Your task to perform on an android device: change the clock style Image 0: 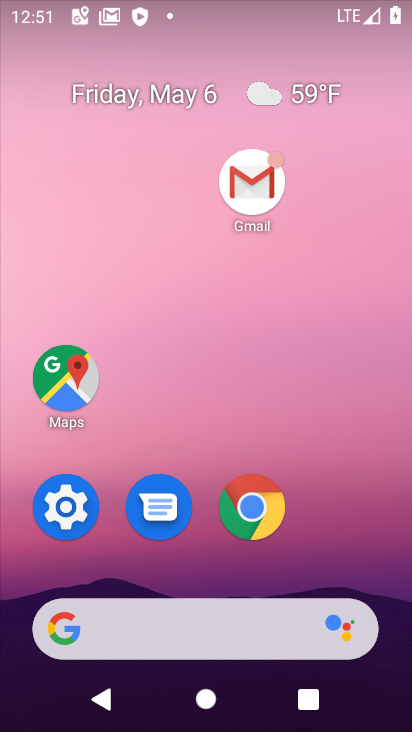
Step 0: drag from (343, 539) to (276, 4)
Your task to perform on an android device: change the clock style Image 1: 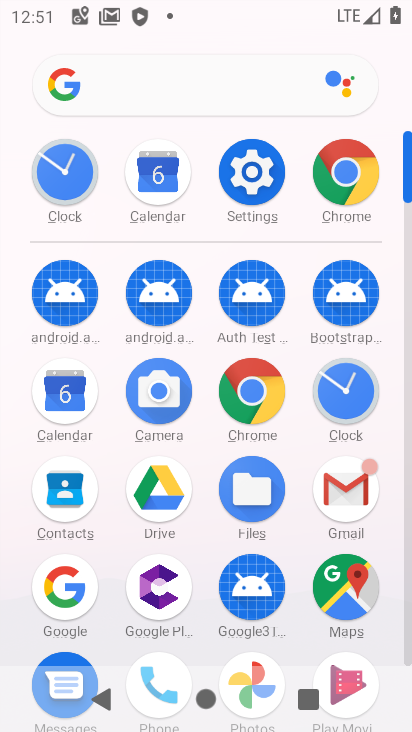
Step 1: click (339, 392)
Your task to perform on an android device: change the clock style Image 2: 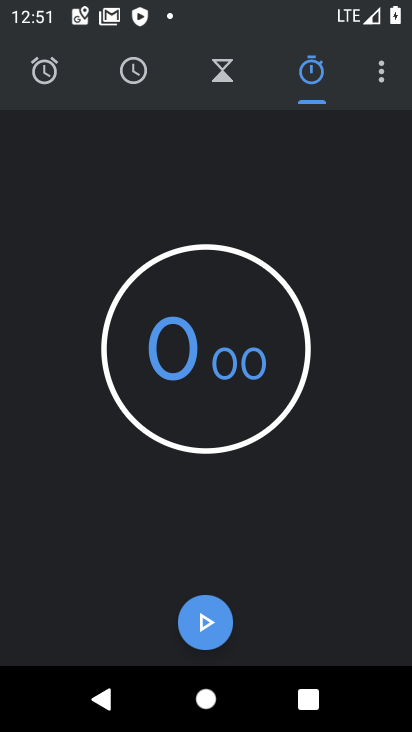
Step 2: click (380, 69)
Your task to perform on an android device: change the clock style Image 3: 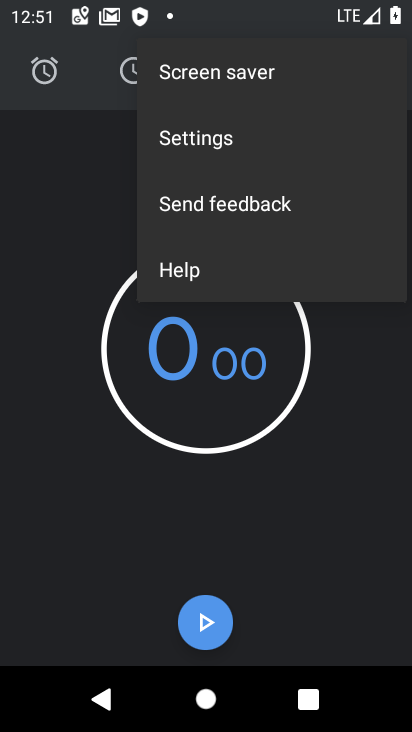
Step 3: click (201, 127)
Your task to perform on an android device: change the clock style Image 4: 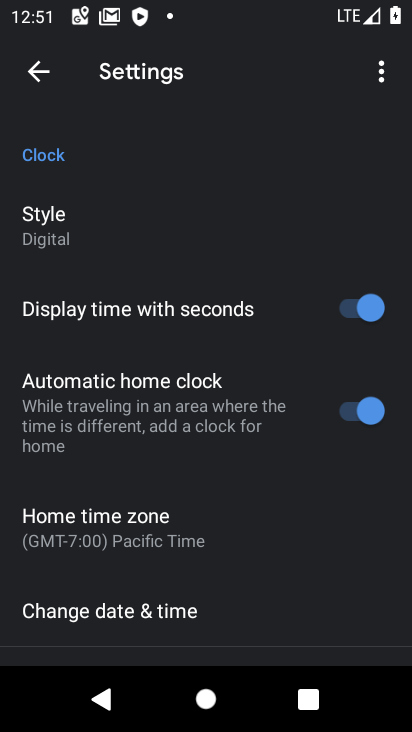
Step 4: click (42, 222)
Your task to perform on an android device: change the clock style Image 5: 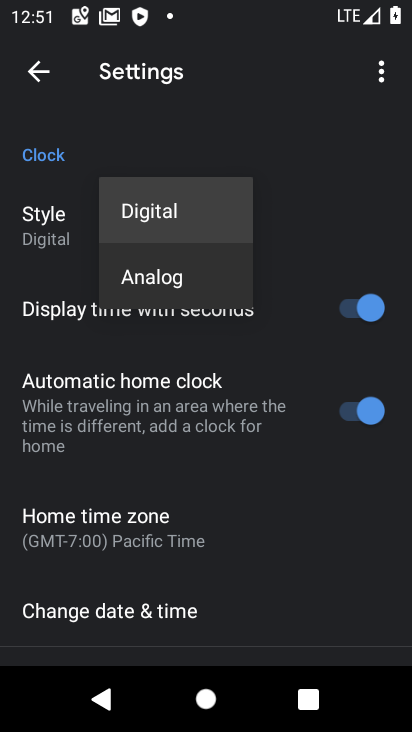
Step 5: click (168, 279)
Your task to perform on an android device: change the clock style Image 6: 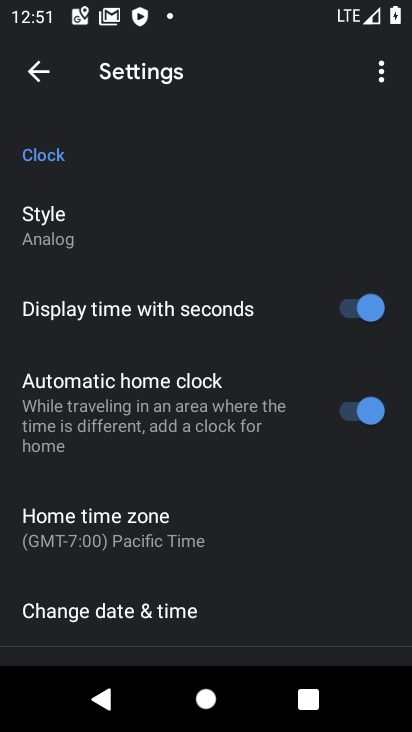
Step 6: task complete